Your task to perform on an android device: refresh tabs in the chrome app Image 0: 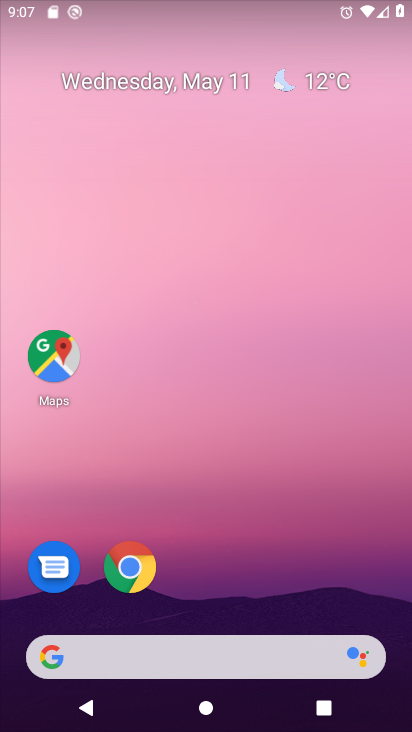
Step 0: click (136, 563)
Your task to perform on an android device: refresh tabs in the chrome app Image 1: 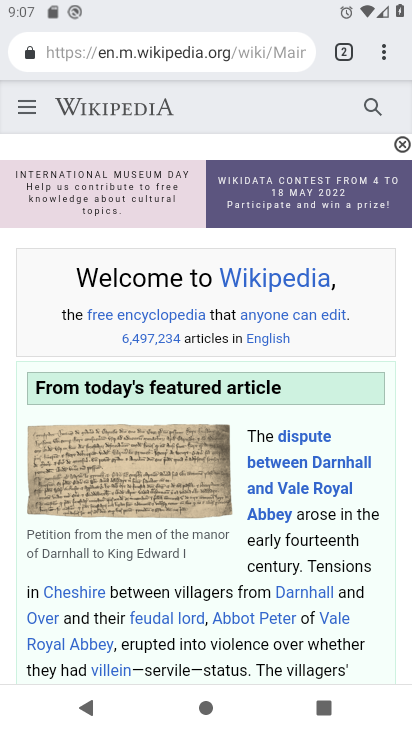
Step 1: click (380, 47)
Your task to perform on an android device: refresh tabs in the chrome app Image 2: 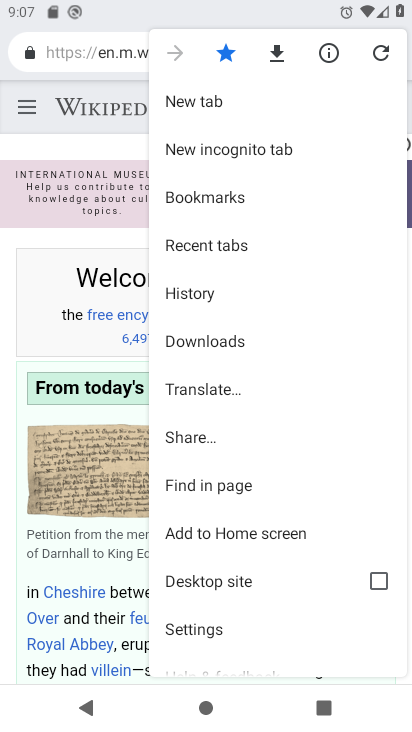
Step 2: click (381, 51)
Your task to perform on an android device: refresh tabs in the chrome app Image 3: 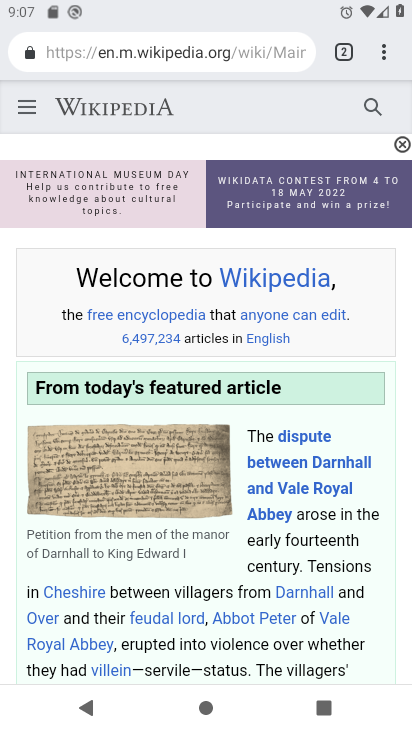
Step 3: task complete